Your task to perform on an android device: What's the weather going to be tomorrow? Image 0: 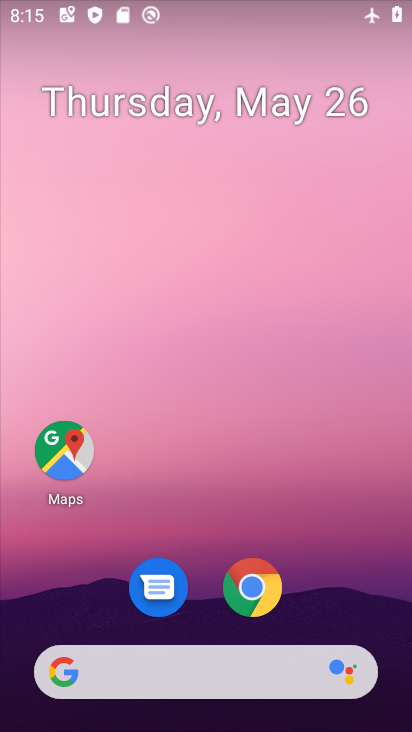
Step 0: drag from (206, 619) to (223, 192)
Your task to perform on an android device: What's the weather going to be tomorrow? Image 1: 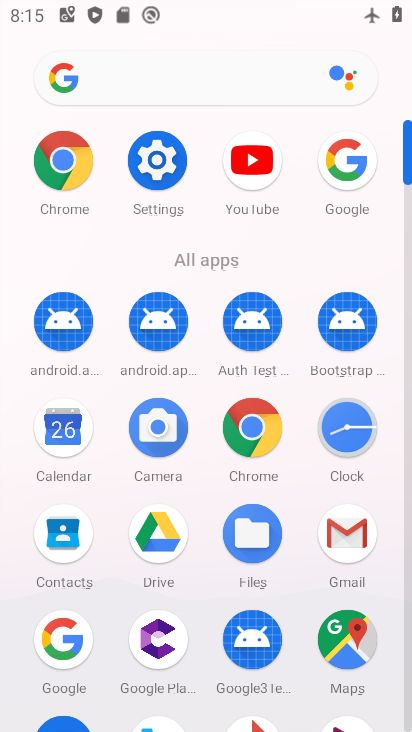
Step 1: click (83, 623)
Your task to perform on an android device: What's the weather going to be tomorrow? Image 2: 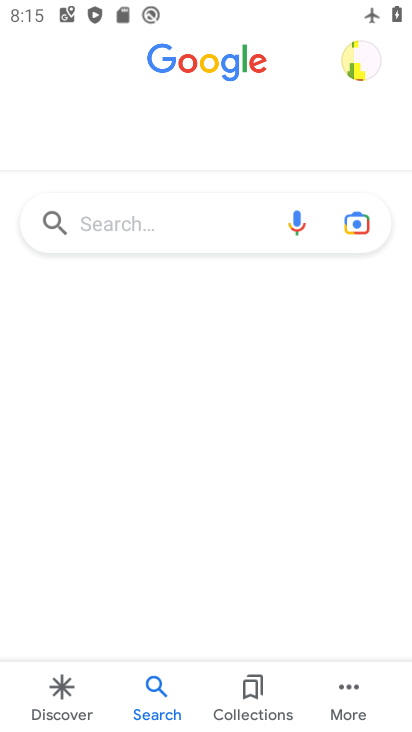
Step 2: click (237, 219)
Your task to perform on an android device: What's the weather going to be tomorrow? Image 3: 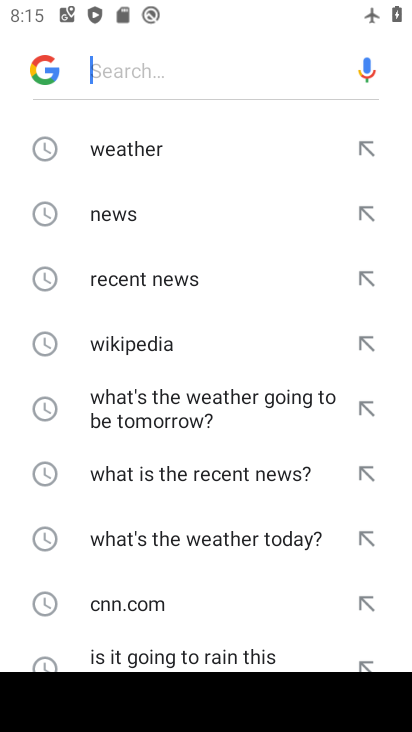
Step 3: click (170, 156)
Your task to perform on an android device: What's the weather going to be tomorrow? Image 4: 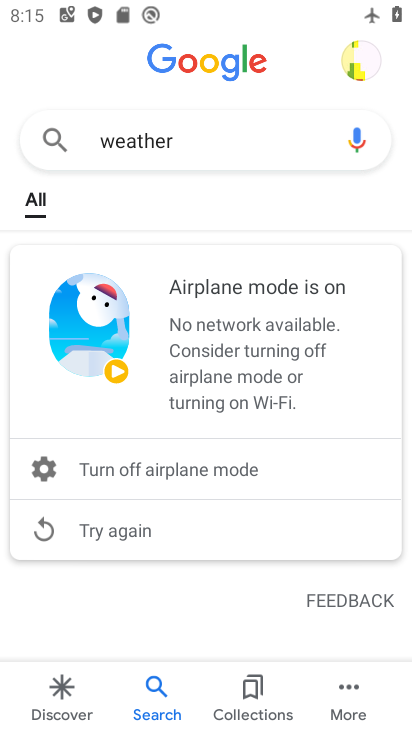
Step 4: task complete